Your task to perform on an android device: empty trash in the gmail app Image 0: 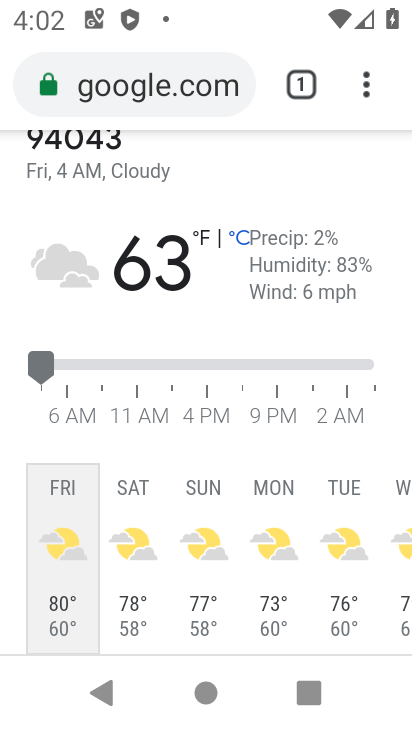
Step 0: press home button
Your task to perform on an android device: empty trash in the gmail app Image 1: 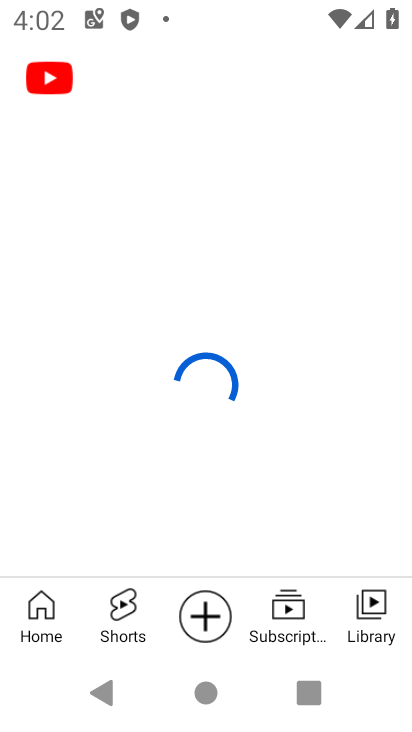
Step 1: press home button
Your task to perform on an android device: empty trash in the gmail app Image 2: 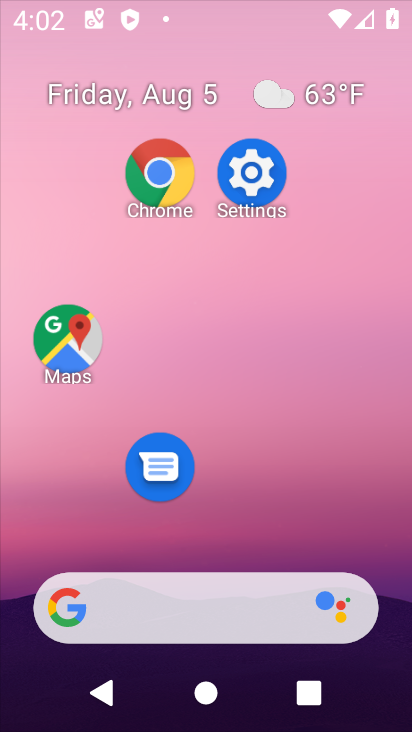
Step 2: press home button
Your task to perform on an android device: empty trash in the gmail app Image 3: 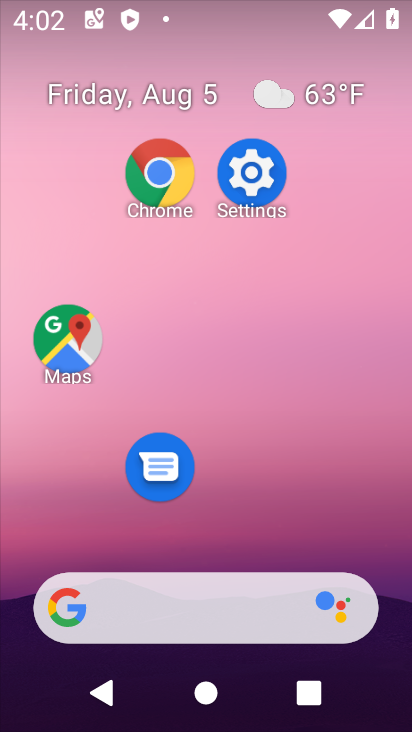
Step 3: drag from (187, 542) to (216, 74)
Your task to perform on an android device: empty trash in the gmail app Image 4: 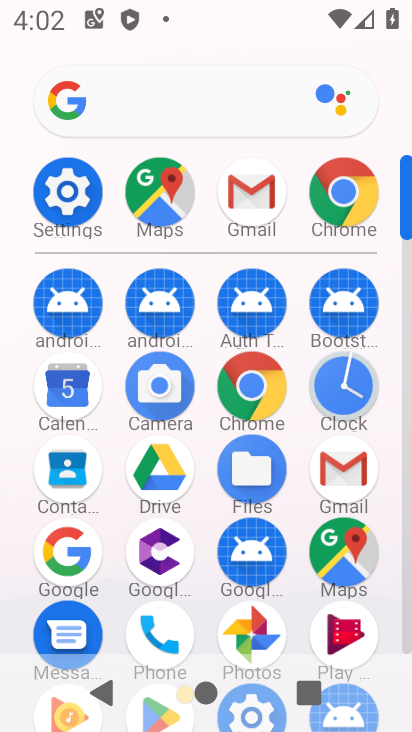
Step 4: click (240, 188)
Your task to perform on an android device: empty trash in the gmail app Image 5: 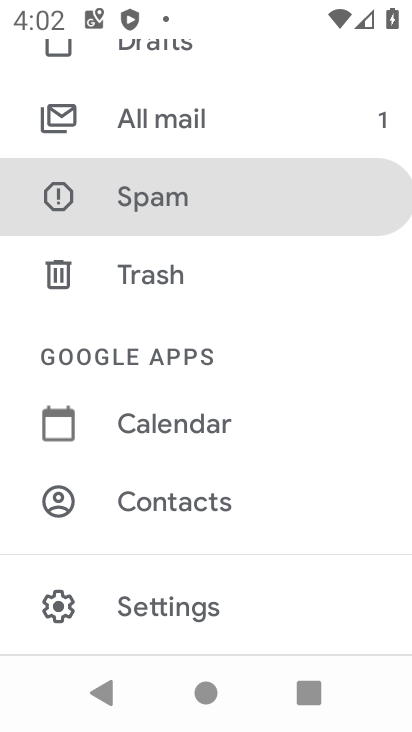
Step 5: drag from (267, 525) to (354, 126)
Your task to perform on an android device: empty trash in the gmail app Image 6: 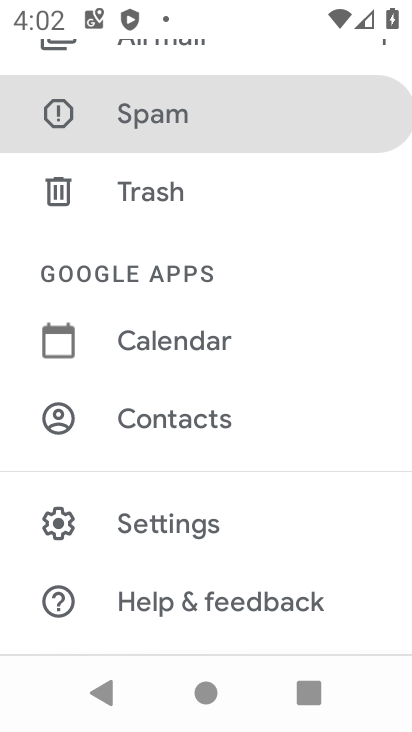
Step 6: click (162, 192)
Your task to perform on an android device: empty trash in the gmail app Image 7: 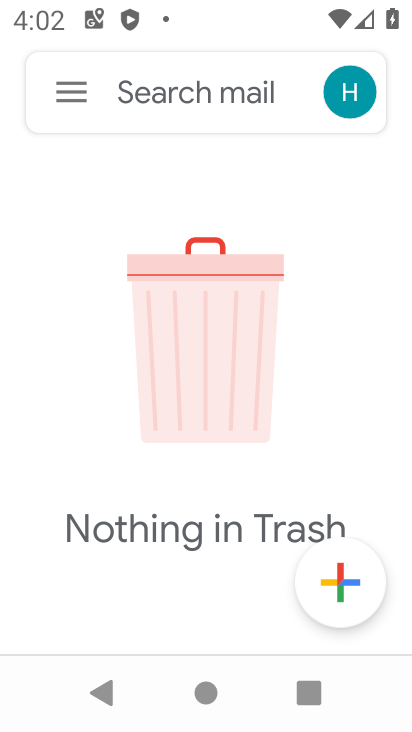
Step 7: task complete